Your task to perform on an android device: Do I have any events this weekend? Image 0: 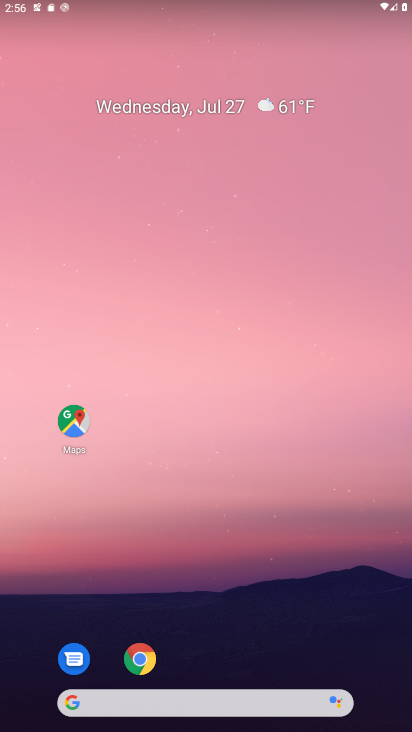
Step 0: drag from (211, 704) to (172, 391)
Your task to perform on an android device: Do I have any events this weekend? Image 1: 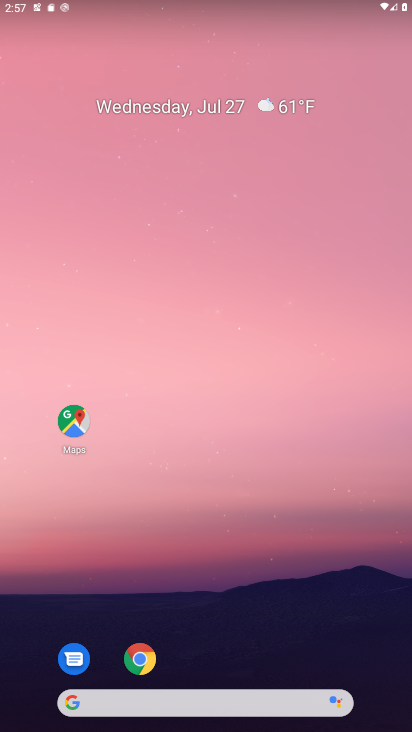
Step 1: drag from (190, 686) to (42, 288)
Your task to perform on an android device: Do I have any events this weekend? Image 2: 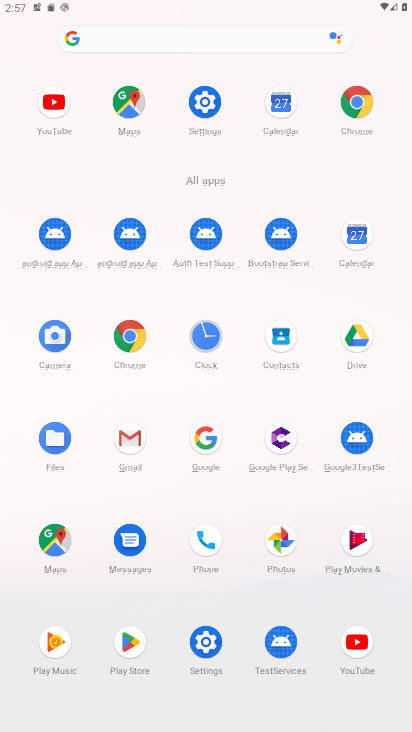
Step 2: click (362, 253)
Your task to perform on an android device: Do I have any events this weekend? Image 3: 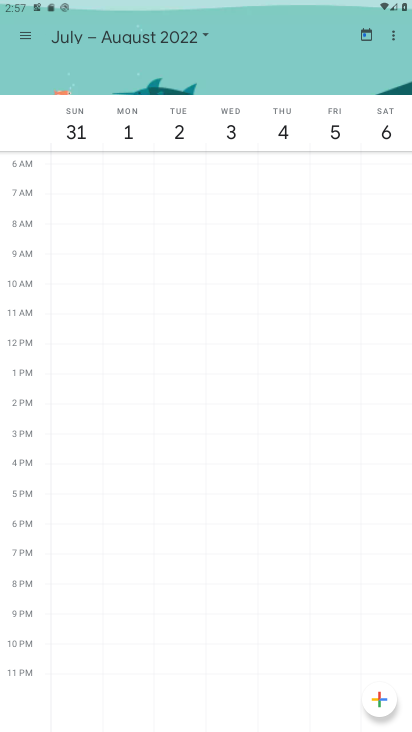
Step 3: task complete